Your task to perform on an android device: What's on my calendar tomorrow? Image 0: 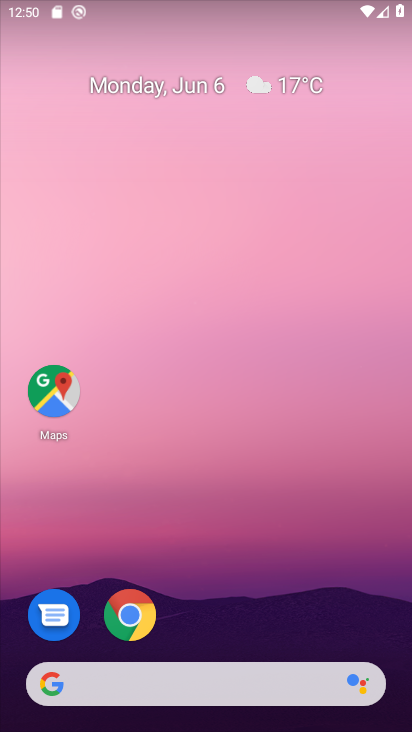
Step 0: drag from (250, 617) to (173, 40)
Your task to perform on an android device: What's on my calendar tomorrow? Image 1: 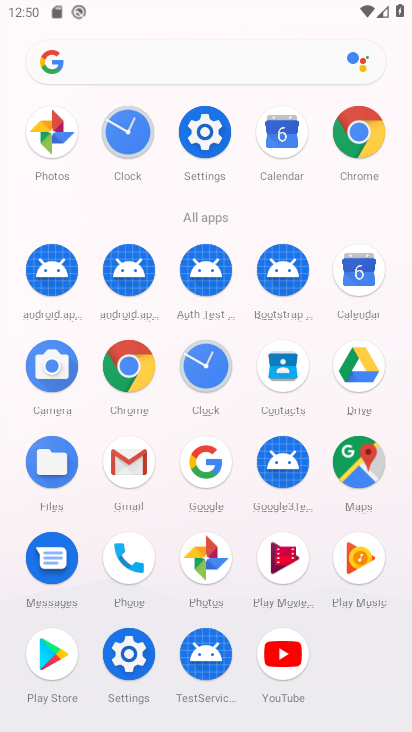
Step 1: click (361, 279)
Your task to perform on an android device: What's on my calendar tomorrow? Image 2: 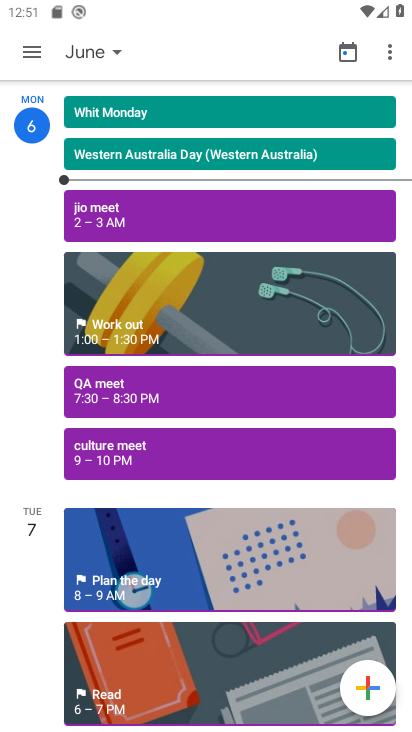
Step 2: task complete